Your task to perform on an android device: check google app version Image 0: 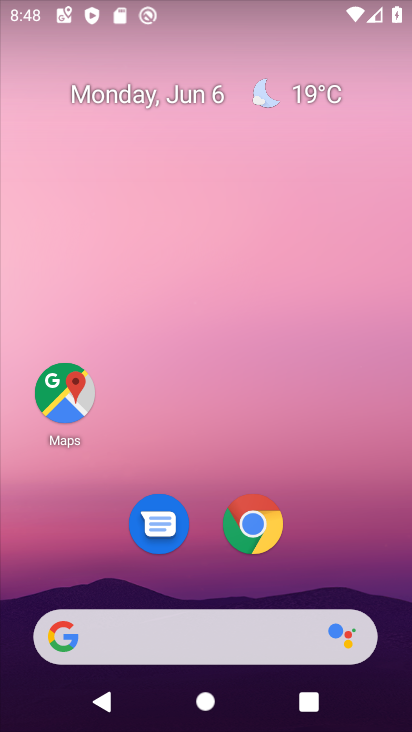
Step 0: click (229, 630)
Your task to perform on an android device: check google app version Image 1: 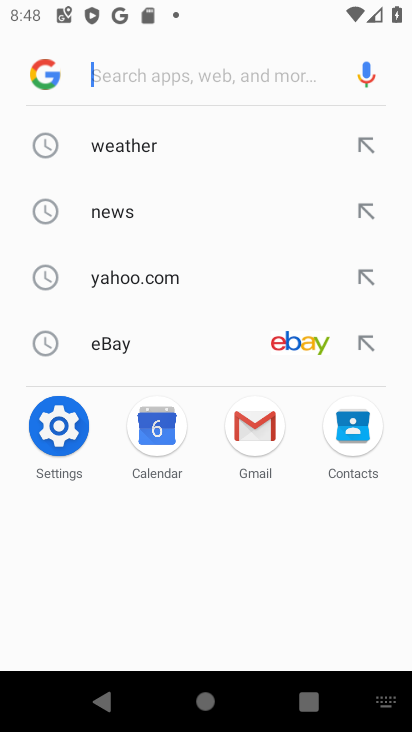
Step 1: click (44, 77)
Your task to perform on an android device: check google app version Image 2: 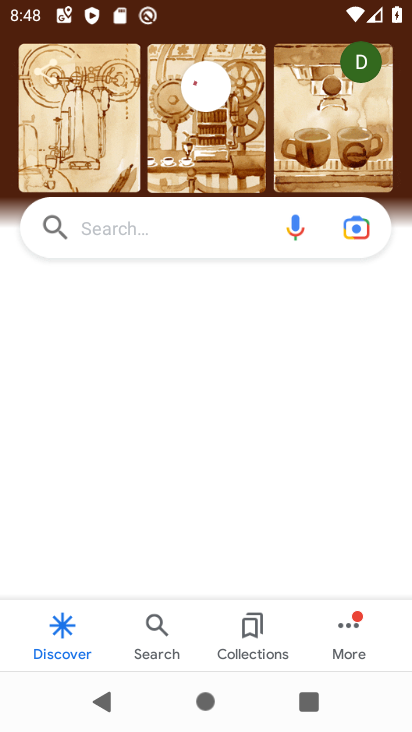
Step 2: click (348, 628)
Your task to perform on an android device: check google app version Image 3: 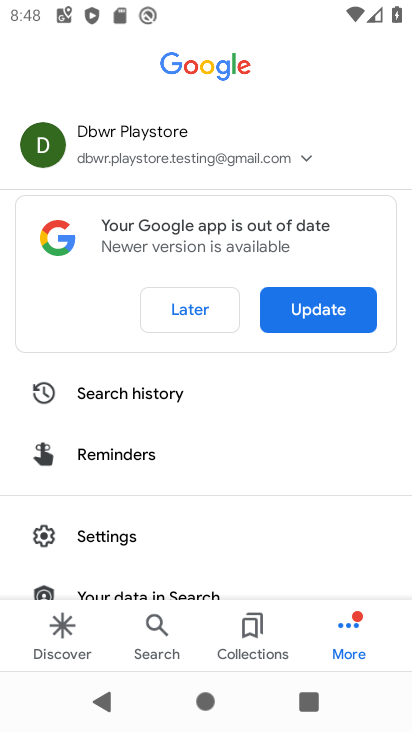
Step 3: drag from (252, 454) to (248, 257)
Your task to perform on an android device: check google app version Image 4: 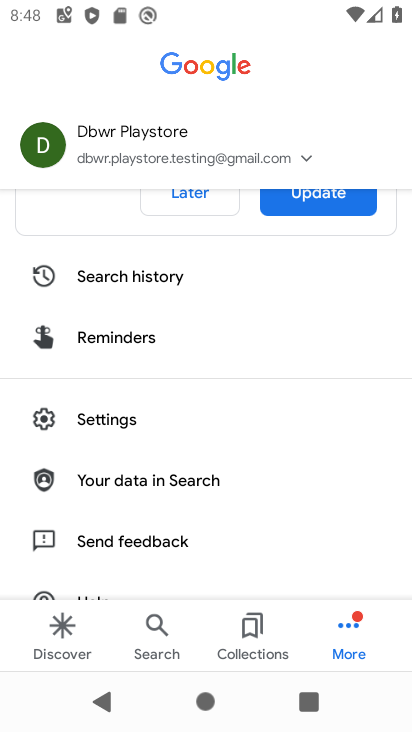
Step 4: drag from (233, 444) to (251, 165)
Your task to perform on an android device: check google app version Image 5: 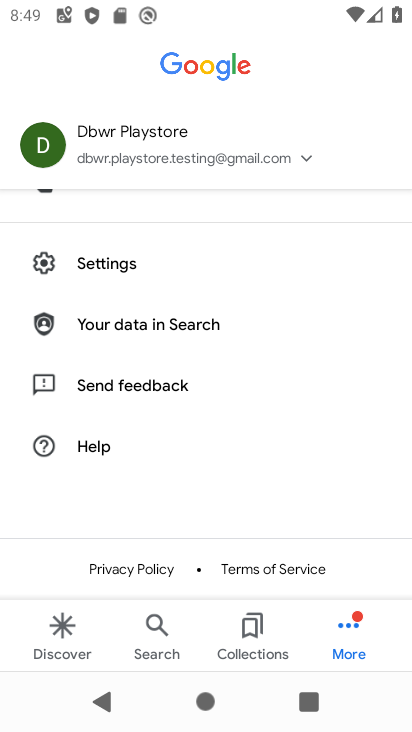
Step 5: drag from (237, 296) to (209, 497)
Your task to perform on an android device: check google app version Image 6: 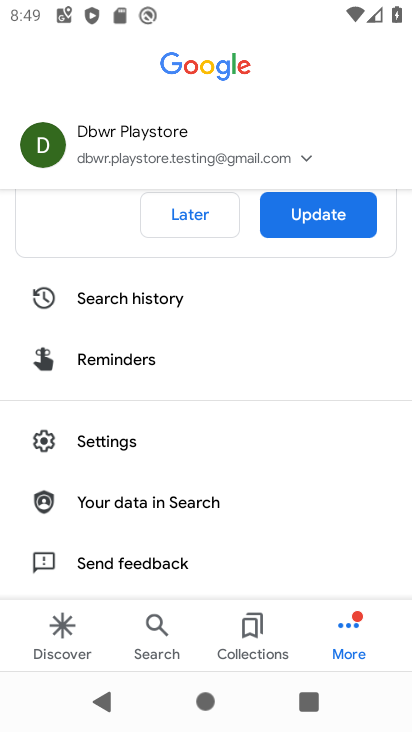
Step 6: click (154, 445)
Your task to perform on an android device: check google app version Image 7: 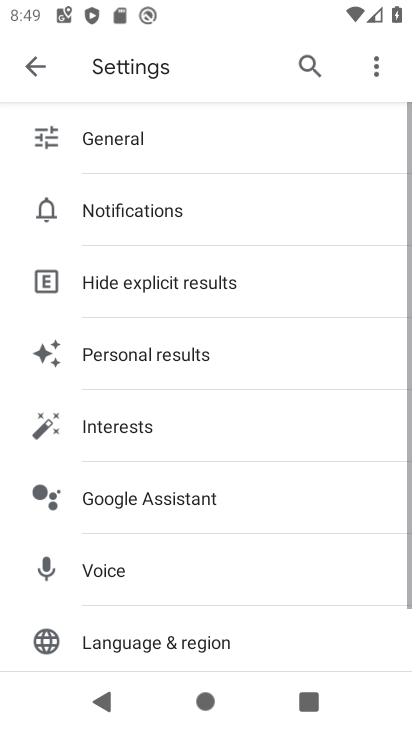
Step 7: drag from (228, 551) to (223, 170)
Your task to perform on an android device: check google app version Image 8: 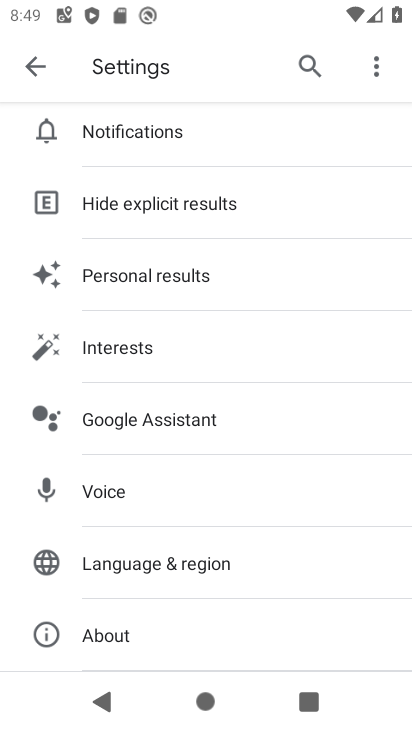
Step 8: click (142, 643)
Your task to perform on an android device: check google app version Image 9: 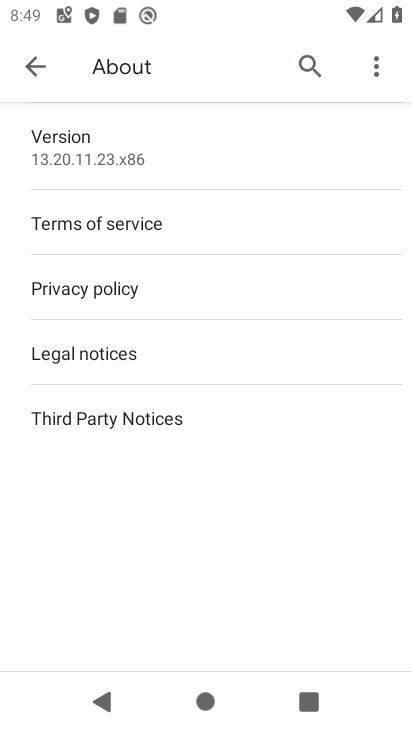
Step 9: task complete